Your task to perform on an android device: What is the capital of Argentina? Image 0: 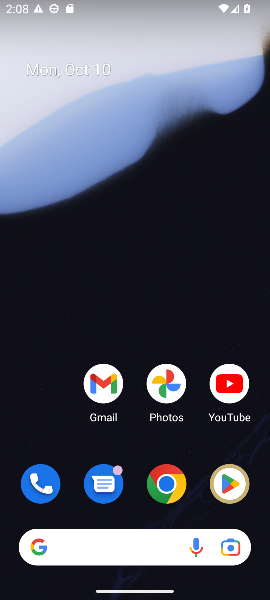
Step 0: click (164, 471)
Your task to perform on an android device: What is the capital of Argentina? Image 1: 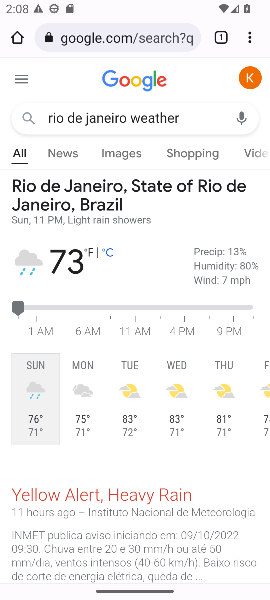
Step 1: click (180, 35)
Your task to perform on an android device: What is the capital of Argentina? Image 2: 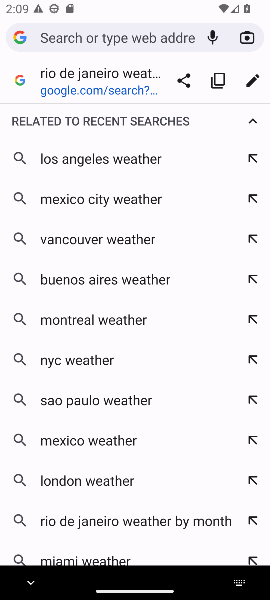
Step 2: click (100, 33)
Your task to perform on an android device: What is the capital of Argentina? Image 3: 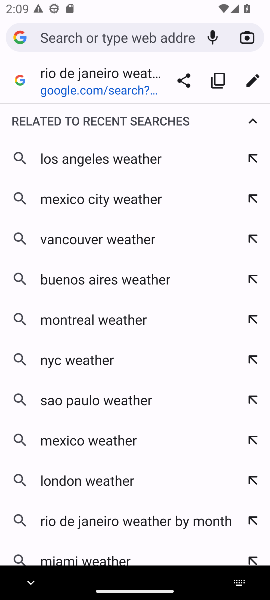
Step 3: type "capital of argentina"
Your task to perform on an android device: What is the capital of Argentina? Image 4: 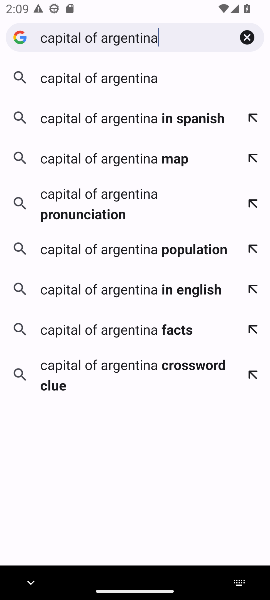
Step 4: click (172, 82)
Your task to perform on an android device: What is the capital of Argentina? Image 5: 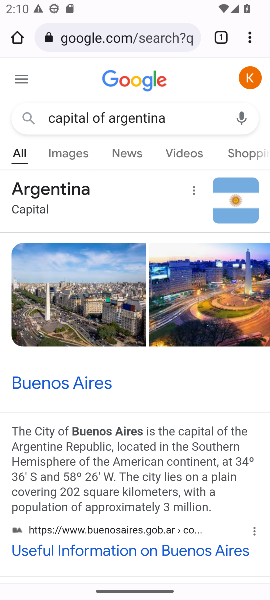
Step 5: task complete